Your task to perform on an android device: install app "Google Sheets" Image 0: 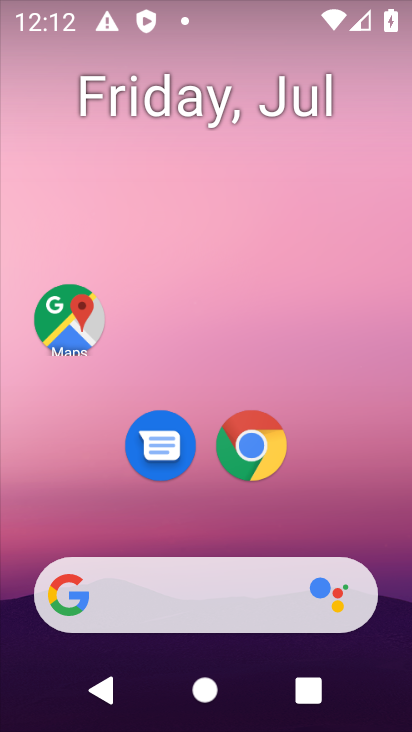
Step 0: drag from (187, 494) to (292, 24)
Your task to perform on an android device: install app "Google Sheets" Image 1: 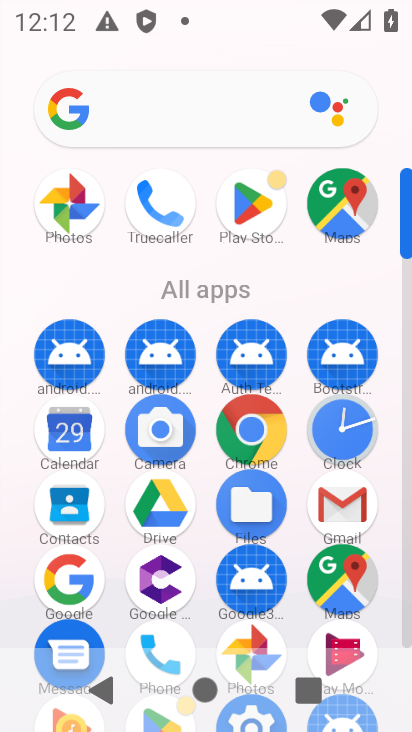
Step 1: click (250, 207)
Your task to perform on an android device: install app "Google Sheets" Image 2: 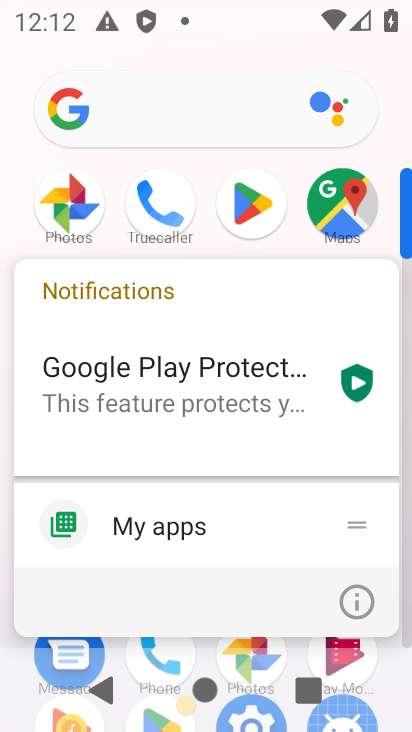
Step 2: click (241, 201)
Your task to perform on an android device: install app "Google Sheets" Image 3: 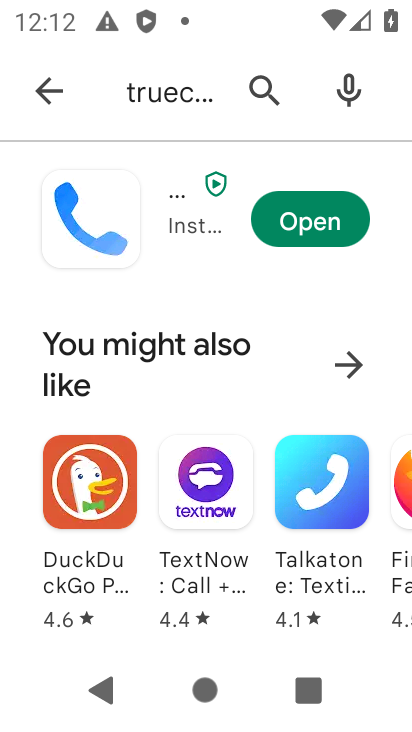
Step 3: click (181, 96)
Your task to perform on an android device: install app "Google Sheets" Image 4: 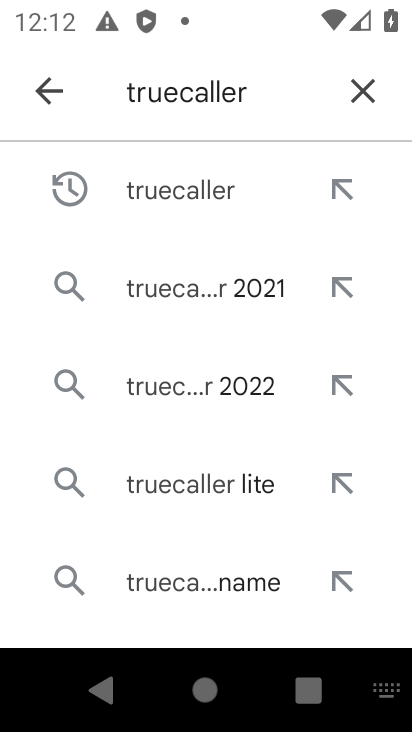
Step 4: click (179, 96)
Your task to perform on an android device: install app "Google Sheets" Image 5: 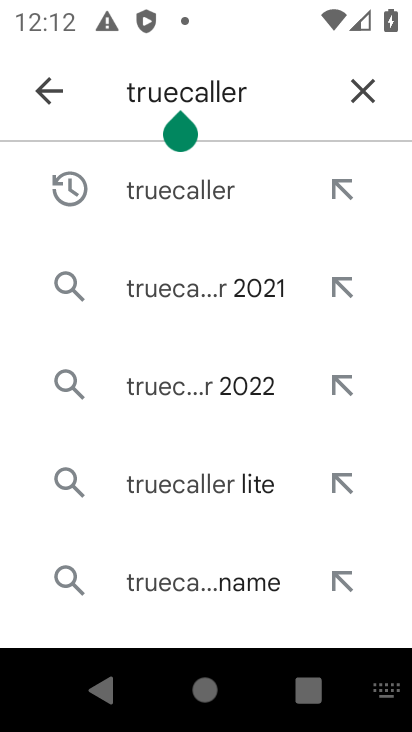
Step 5: click (364, 88)
Your task to perform on an android device: install app "Google Sheets" Image 6: 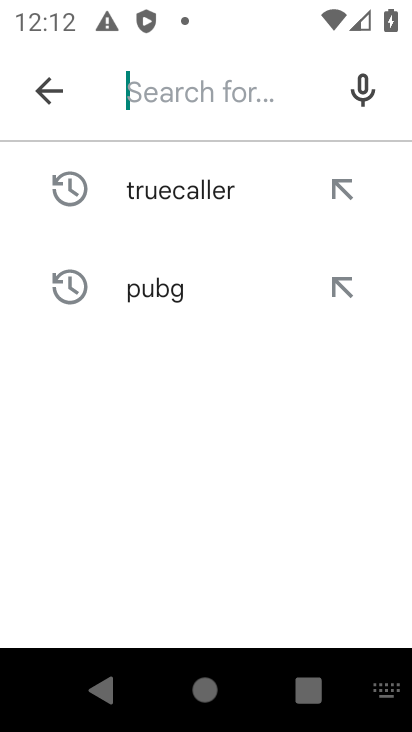
Step 6: type "google sheets"
Your task to perform on an android device: install app "Google Sheets" Image 7: 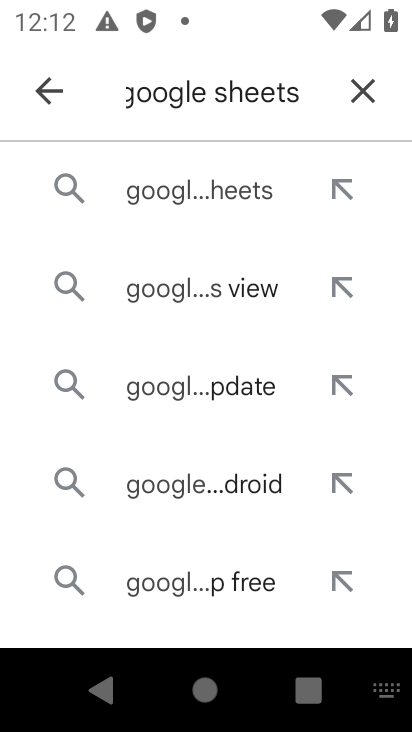
Step 7: click (218, 206)
Your task to perform on an android device: install app "Google Sheets" Image 8: 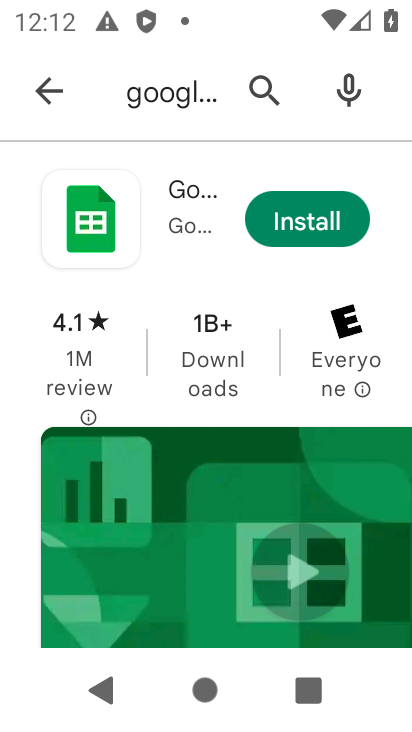
Step 8: click (302, 209)
Your task to perform on an android device: install app "Google Sheets" Image 9: 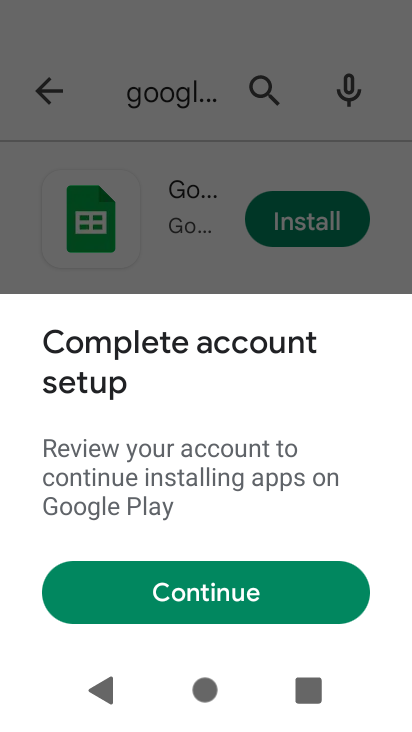
Step 9: click (203, 590)
Your task to perform on an android device: install app "Google Sheets" Image 10: 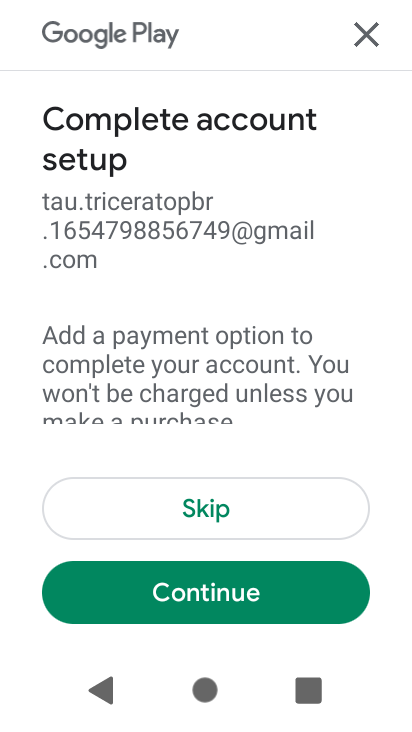
Step 10: click (237, 506)
Your task to perform on an android device: install app "Google Sheets" Image 11: 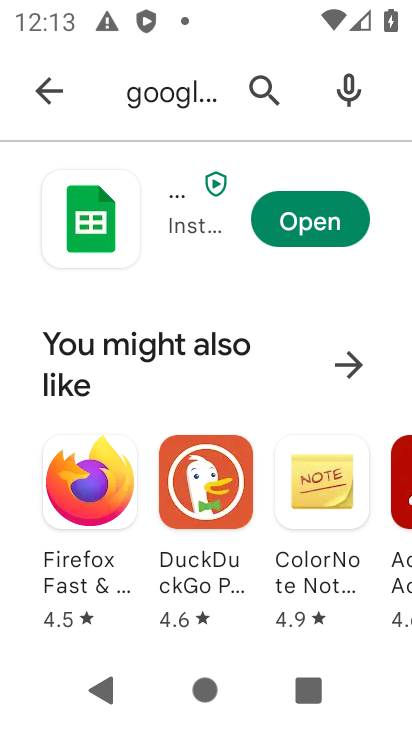
Step 11: task complete